Your task to perform on an android device: Go to settings Image 0: 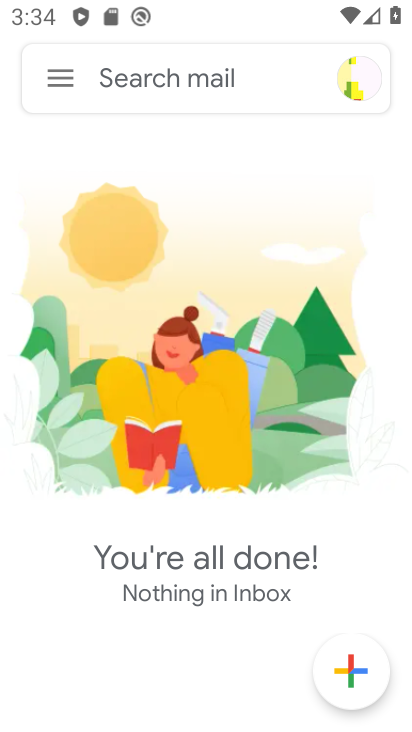
Step 0: press home button
Your task to perform on an android device: Go to settings Image 1: 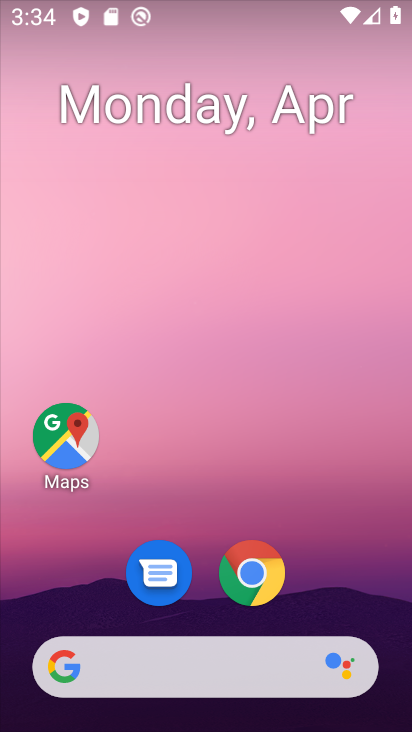
Step 1: drag from (345, 588) to (338, 164)
Your task to perform on an android device: Go to settings Image 2: 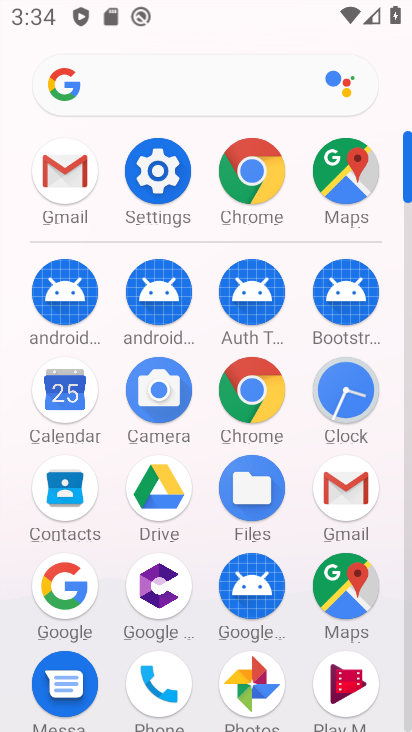
Step 2: click (167, 179)
Your task to perform on an android device: Go to settings Image 3: 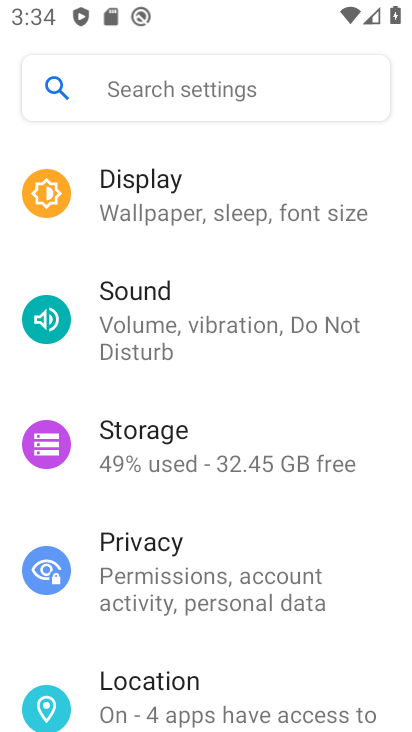
Step 3: task complete